Your task to perform on an android device: Open Reddit.com Image 0: 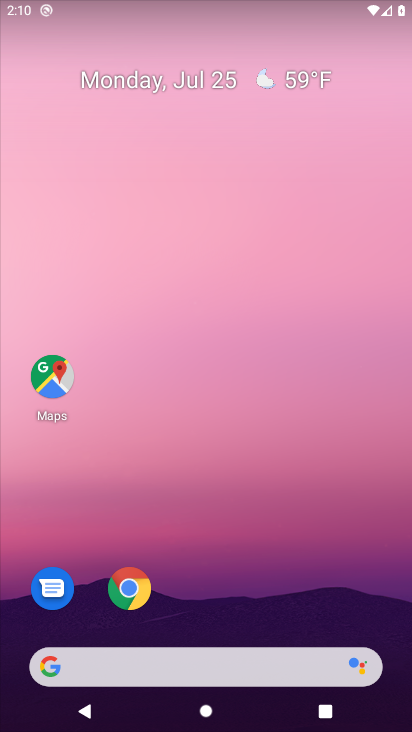
Step 0: click (132, 588)
Your task to perform on an android device: Open Reddit.com Image 1: 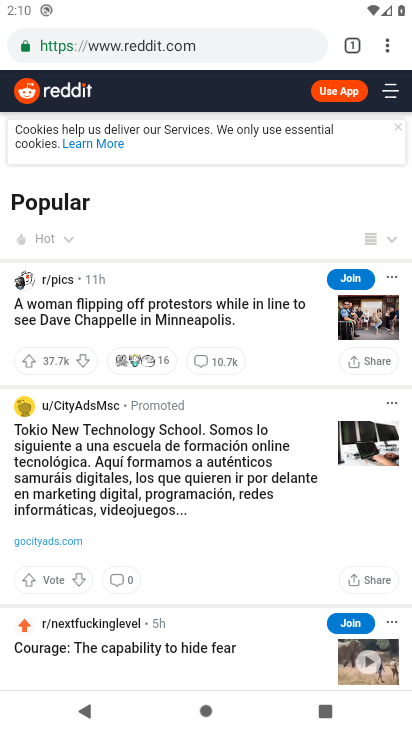
Step 1: task complete